Your task to perform on an android device: clear history in the chrome app Image 0: 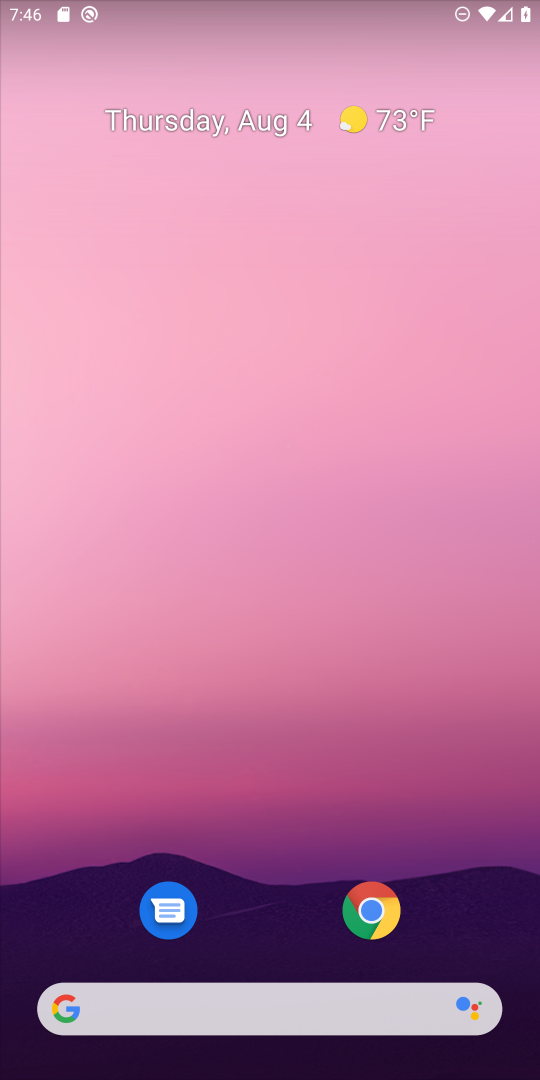
Step 0: drag from (478, 810) to (372, 0)
Your task to perform on an android device: clear history in the chrome app Image 1: 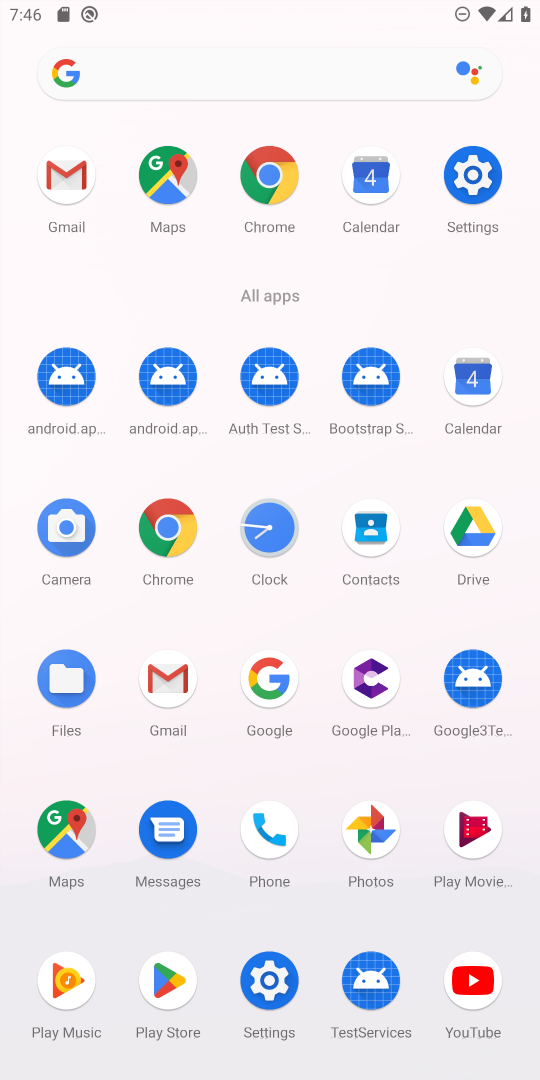
Step 1: click (172, 531)
Your task to perform on an android device: clear history in the chrome app Image 2: 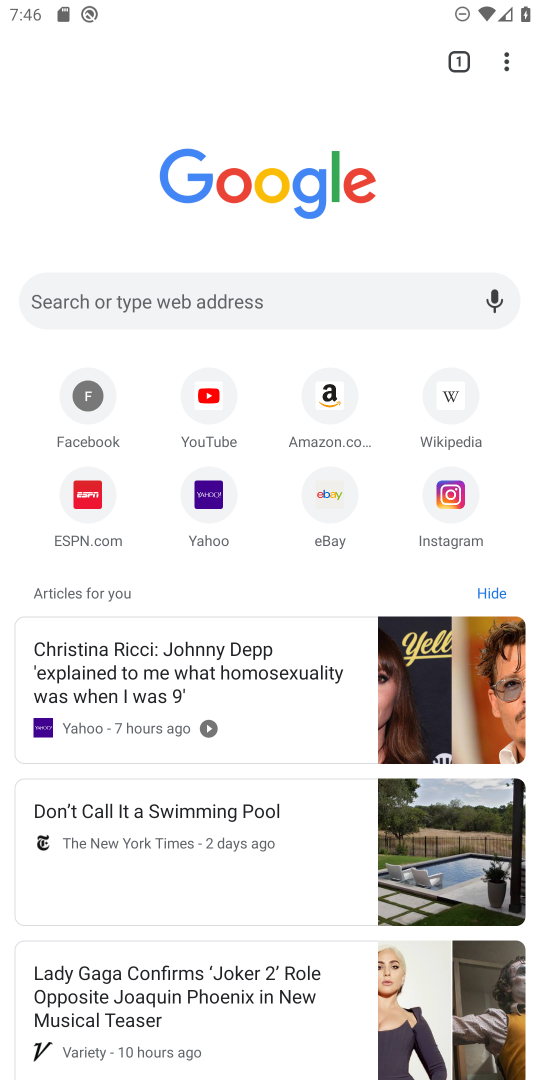
Step 2: drag from (510, 56) to (295, 352)
Your task to perform on an android device: clear history in the chrome app Image 3: 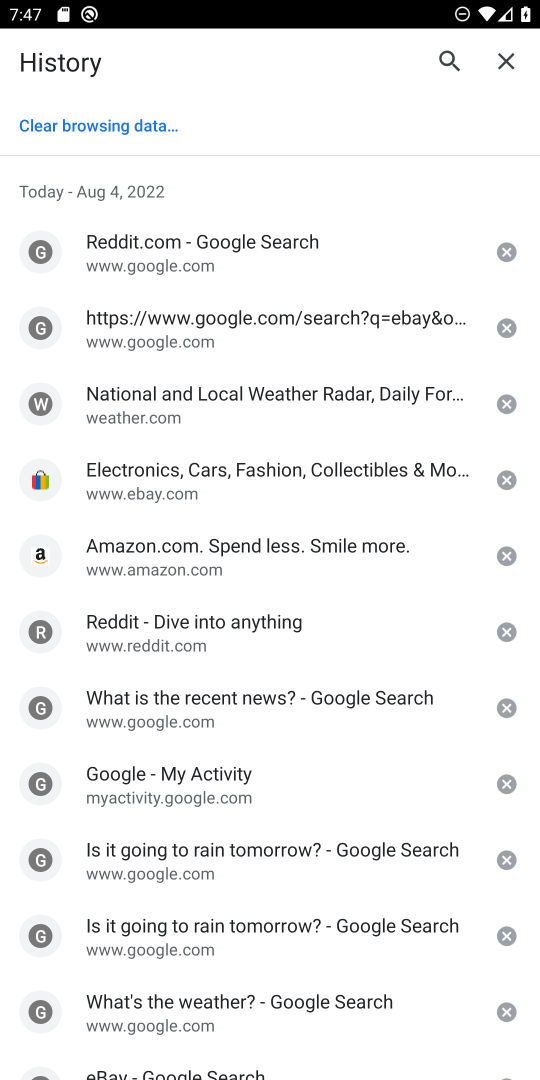
Step 3: click (112, 127)
Your task to perform on an android device: clear history in the chrome app Image 4: 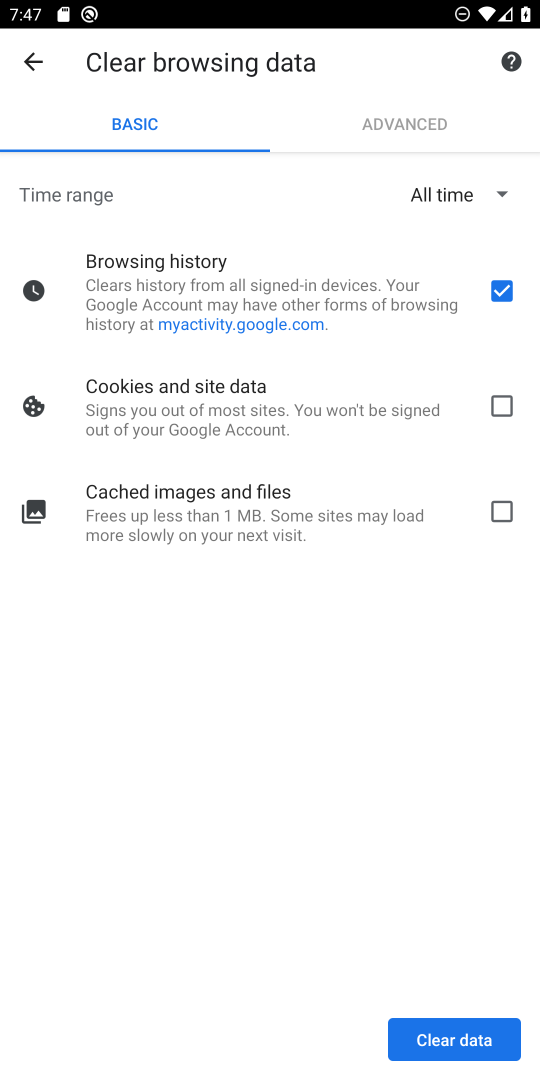
Step 4: click (475, 1057)
Your task to perform on an android device: clear history in the chrome app Image 5: 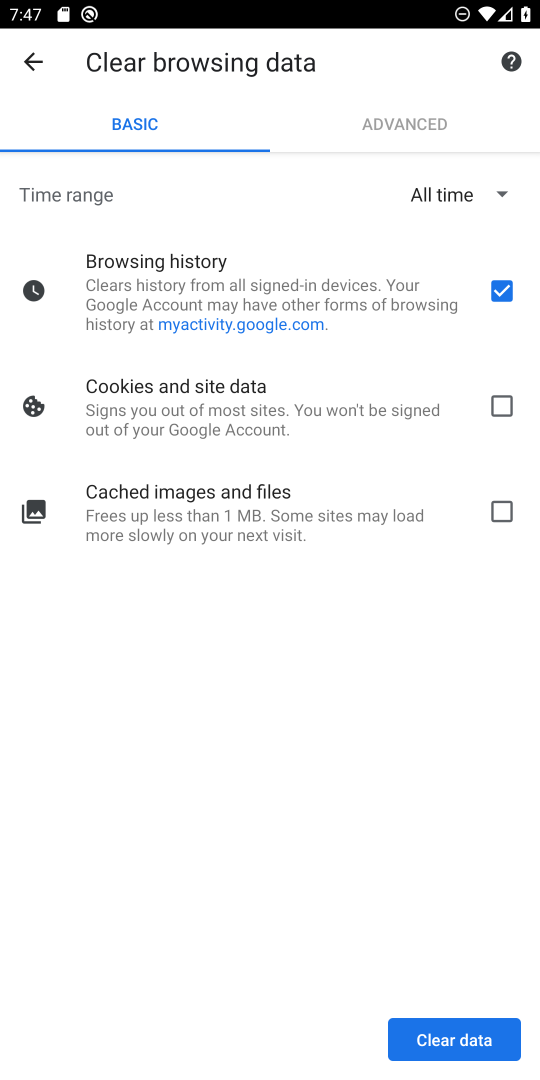
Step 5: click (466, 1034)
Your task to perform on an android device: clear history in the chrome app Image 6: 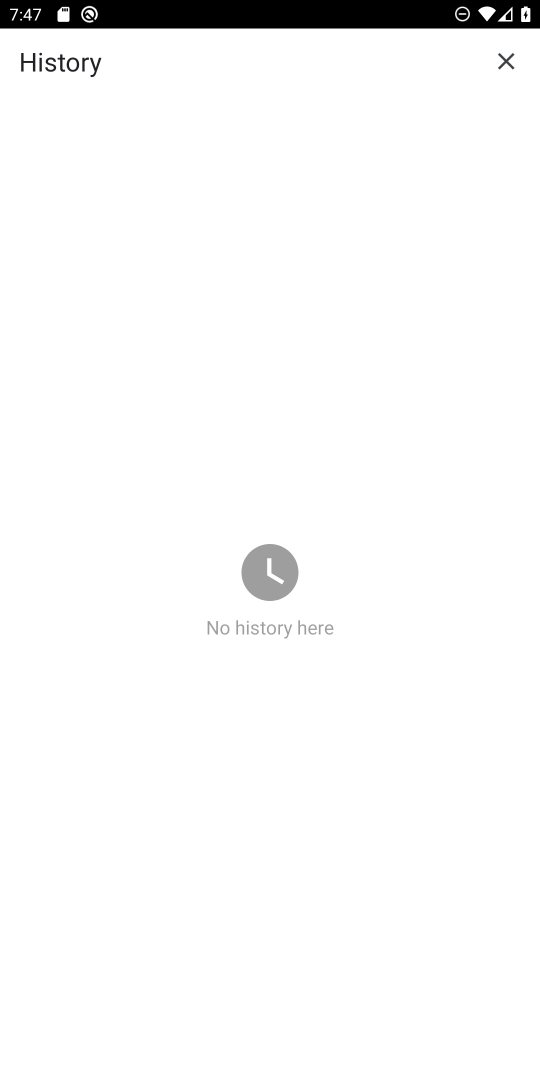
Step 6: task complete